Your task to perform on an android device: Search for pizza restaurants on Maps Image 0: 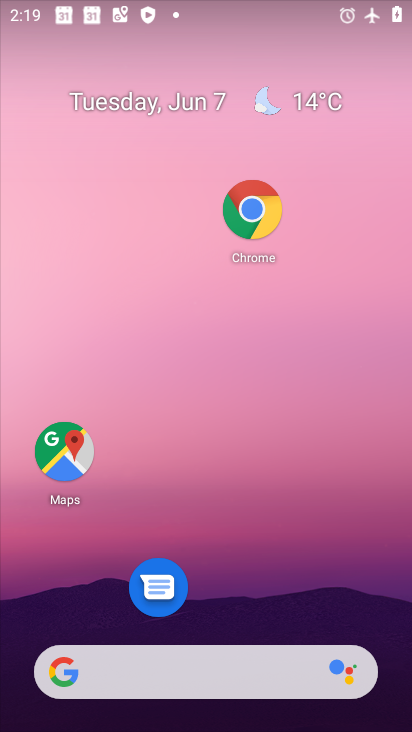
Step 0: drag from (272, 625) to (202, 158)
Your task to perform on an android device: Search for pizza restaurants on Maps Image 1: 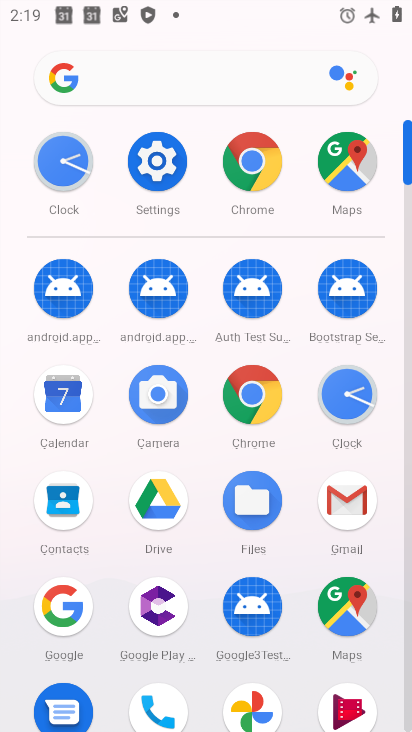
Step 1: click (331, 619)
Your task to perform on an android device: Search for pizza restaurants on Maps Image 2: 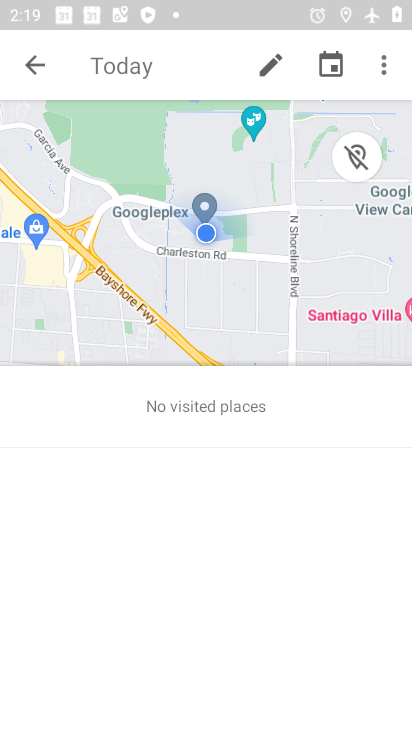
Step 2: click (36, 56)
Your task to perform on an android device: Search for pizza restaurants on Maps Image 3: 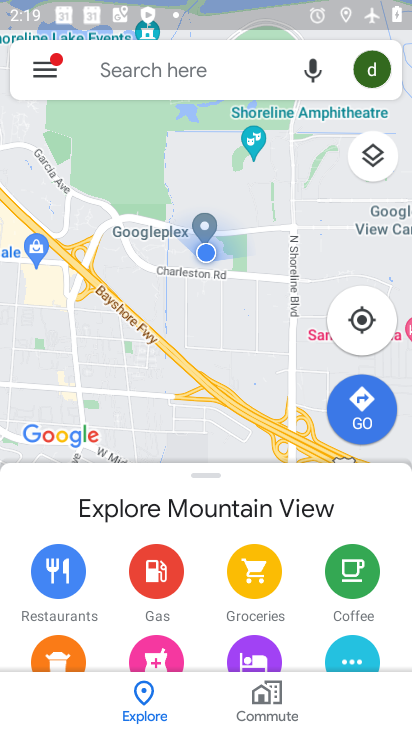
Step 3: click (190, 67)
Your task to perform on an android device: Search for pizza restaurants on Maps Image 4: 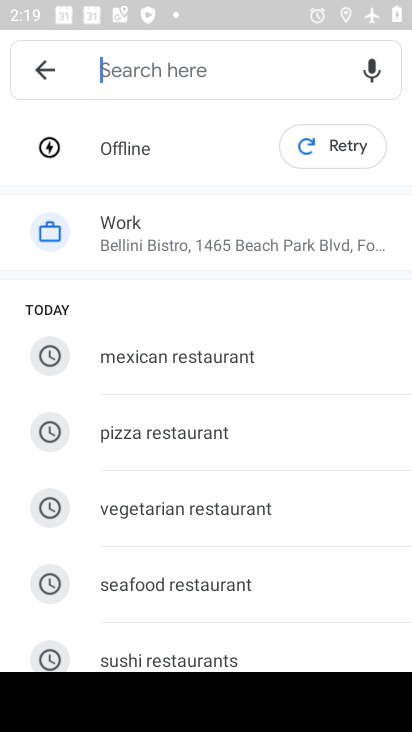
Step 4: type "pizza restaurants"
Your task to perform on an android device: Search for pizza restaurants on Maps Image 5: 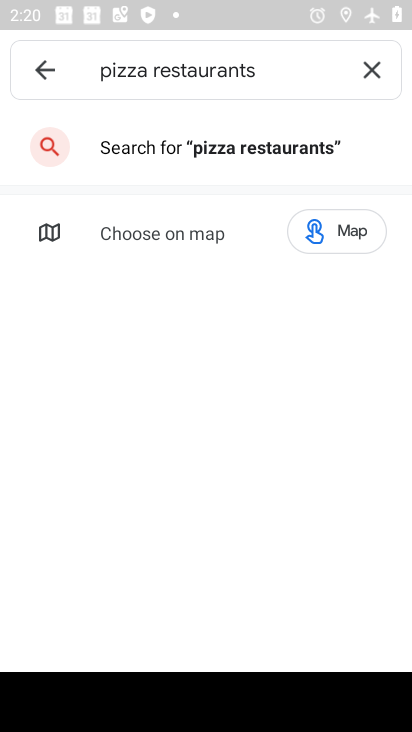
Step 5: task complete